Your task to perform on an android device: Set the phone to "Do not disturb". Image 0: 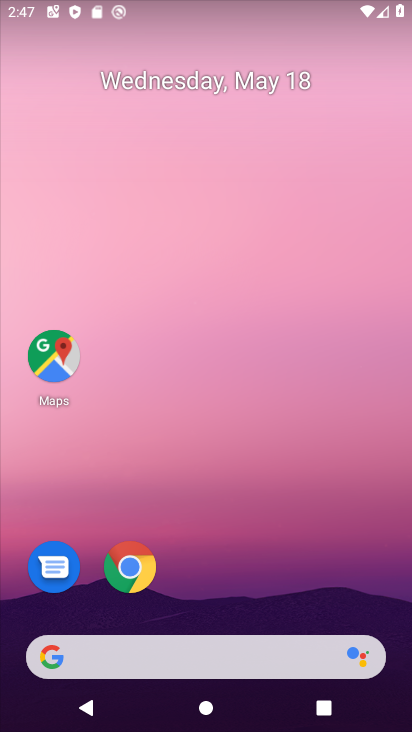
Step 0: drag from (253, 591) to (299, 344)
Your task to perform on an android device: Set the phone to "Do not disturb". Image 1: 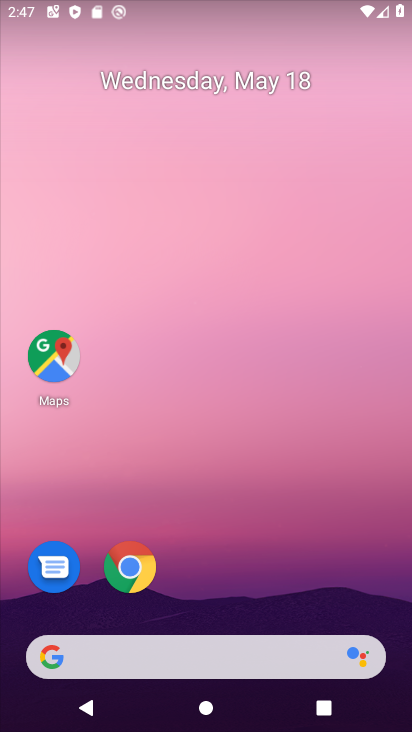
Step 1: drag from (218, 567) to (279, 225)
Your task to perform on an android device: Set the phone to "Do not disturb". Image 2: 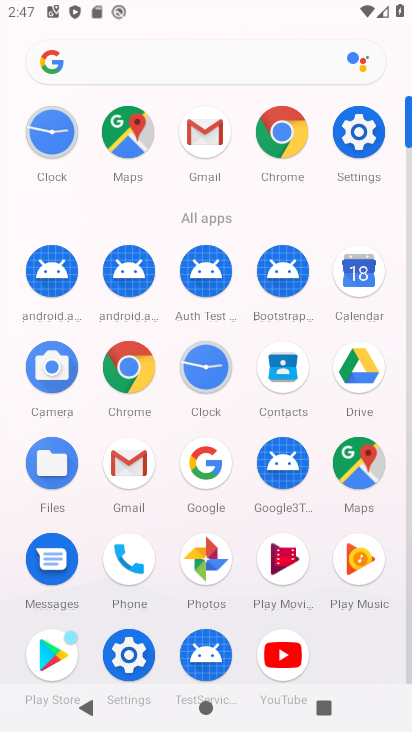
Step 2: click (358, 140)
Your task to perform on an android device: Set the phone to "Do not disturb". Image 3: 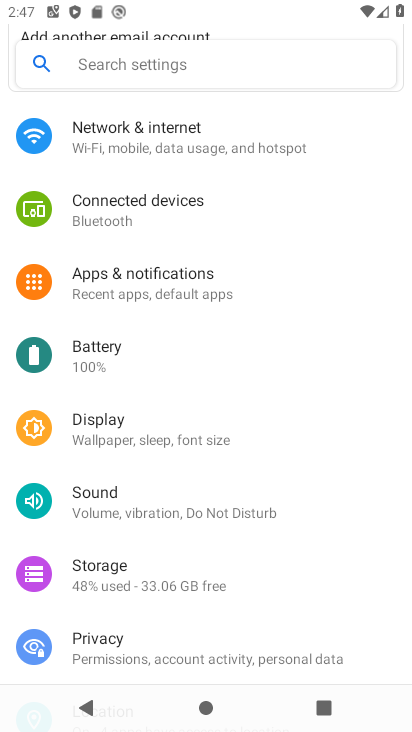
Step 3: click (133, 503)
Your task to perform on an android device: Set the phone to "Do not disturb". Image 4: 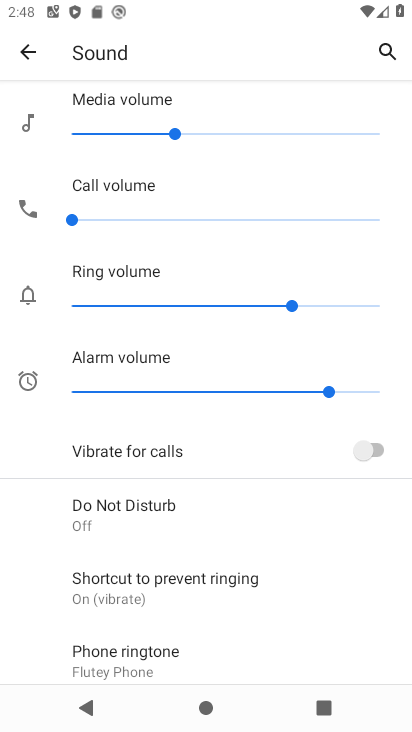
Step 4: click (142, 523)
Your task to perform on an android device: Set the phone to "Do not disturb". Image 5: 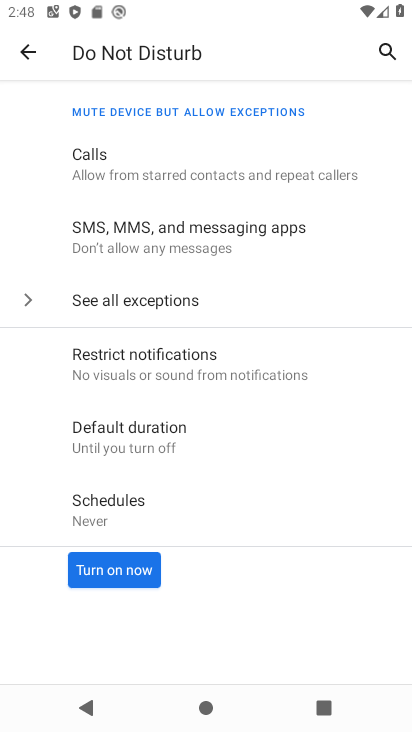
Step 5: click (126, 569)
Your task to perform on an android device: Set the phone to "Do not disturb". Image 6: 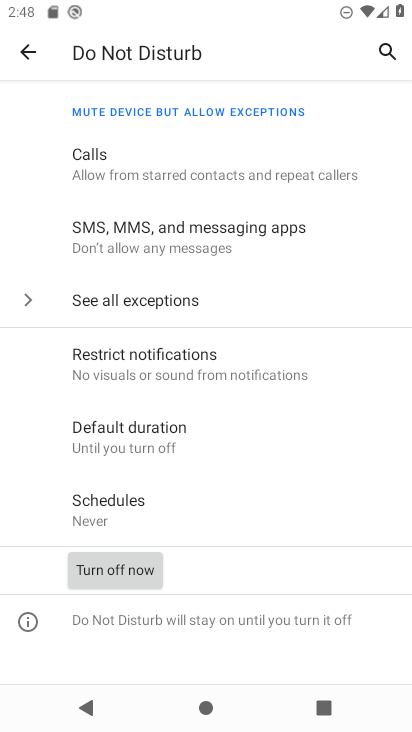
Step 6: task complete